Your task to perform on an android device: toggle wifi Image 0: 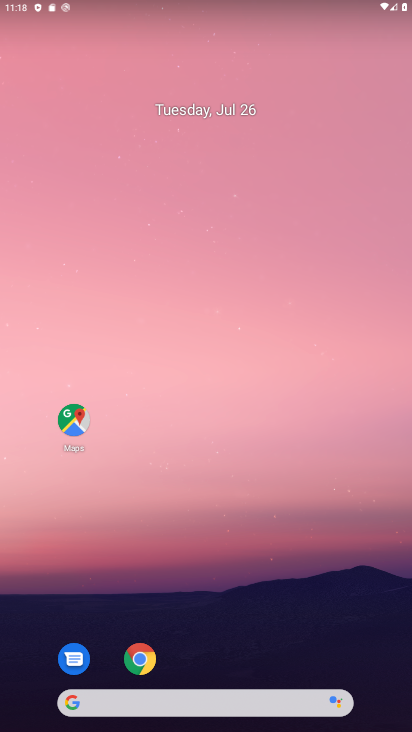
Step 0: drag from (215, 73) to (113, 268)
Your task to perform on an android device: toggle wifi Image 1: 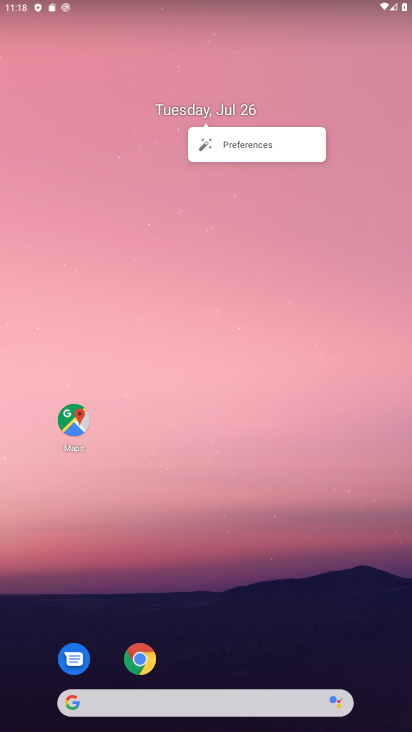
Step 1: click (9, 183)
Your task to perform on an android device: toggle wifi Image 2: 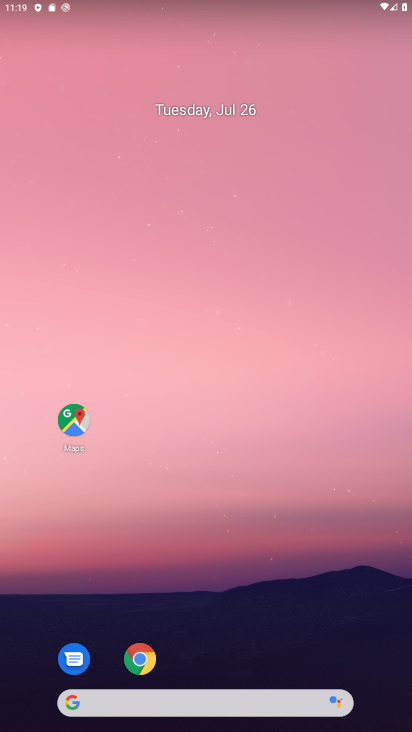
Step 2: drag from (390, 107) to (78, 431)
Your task to perform on an android device: toggle wifi Image 3: 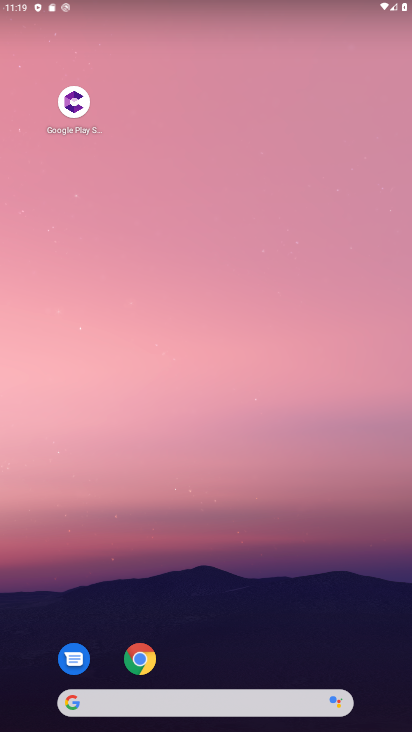
Step 3: drag from (65, 31) to (54, 440)
Your task to perform on an android device: toggle wifi Image 4: 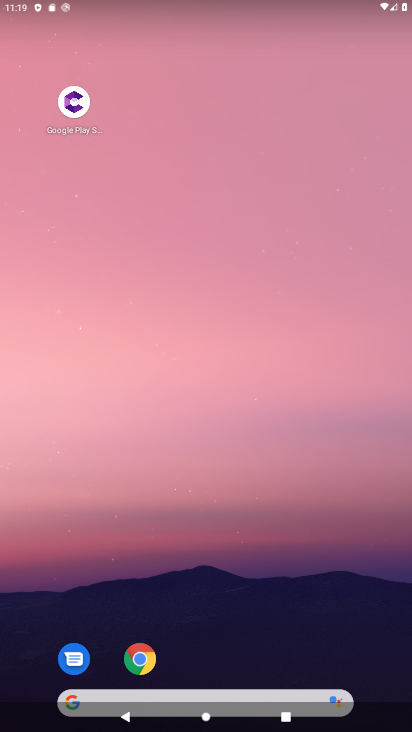
Step 4: drag from (93, 7) to (75, 511)
Your task to perform on an android device: toggle wifi Image 5: 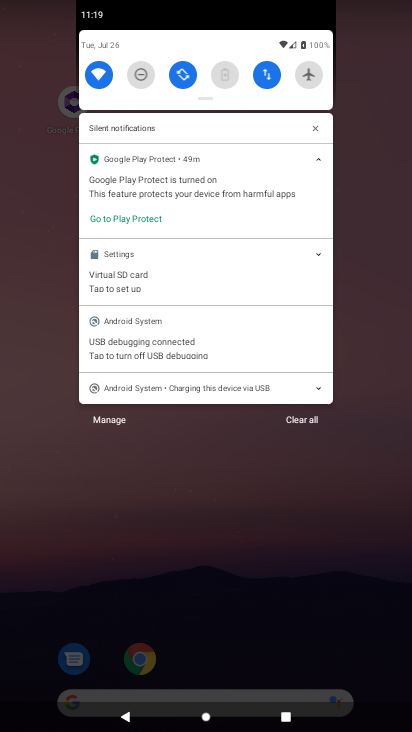
Step 5: click (97, 82)
Your task to perform on an android device: toggle wifi Image 6: 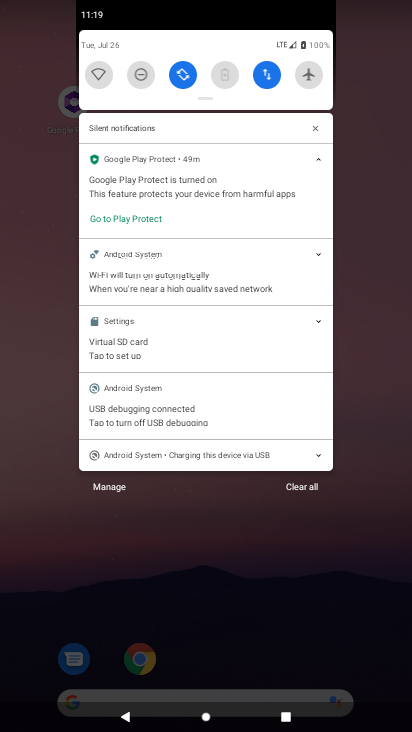
Step 6: task complete